Your task to perform on an android device: Open Google Image 0: 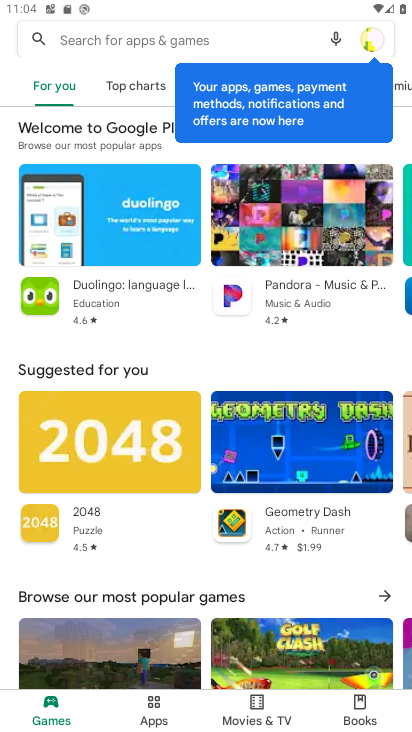
Step 0: press home button
Your task to perform on an android device: Open Google Image 1: 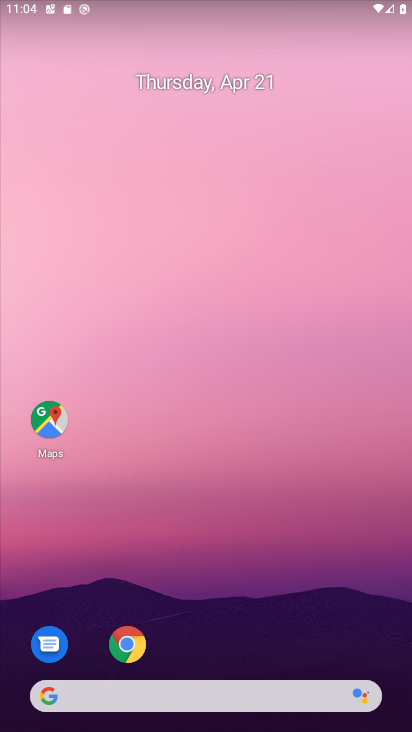
Step 1: drag from (293, 620) to (255, 102)
Your task to perform on an android device: Open Google Image 2: 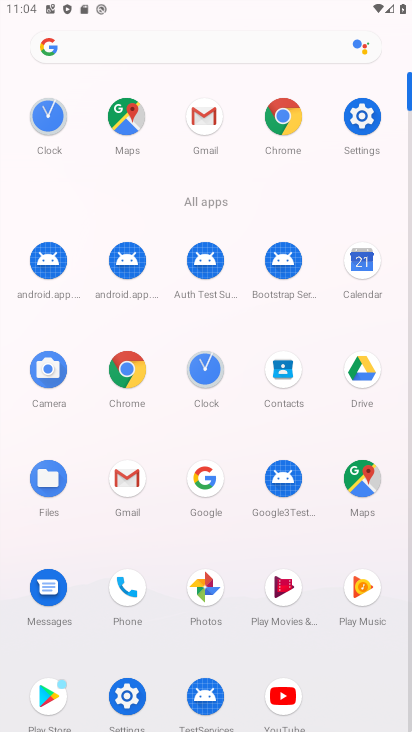
Step 2: click (203, 478)
Your task to perform on an android device: Open Google Image 3: 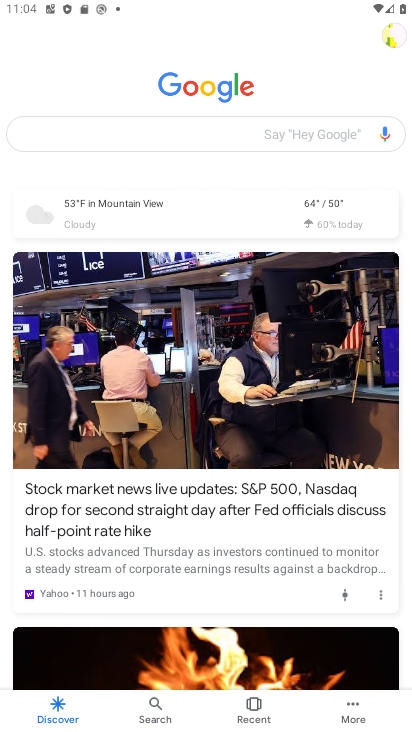
Step 3: task complete